Your task to perform on an android device: Open the web browser Image 0: 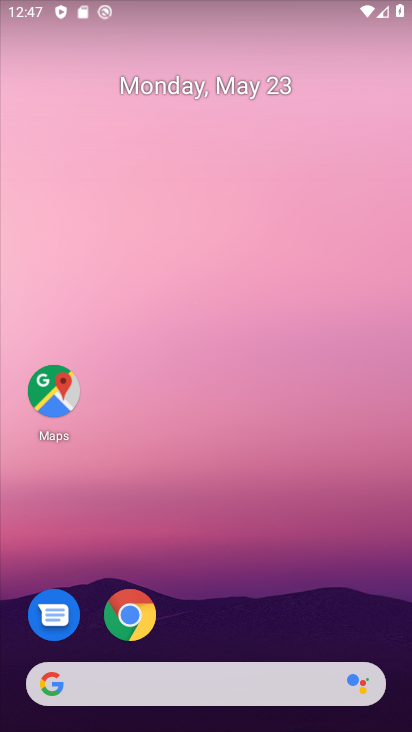
Step 0: click (129, 621)
Your task to perform on an android device: Open the web browser Image 1: 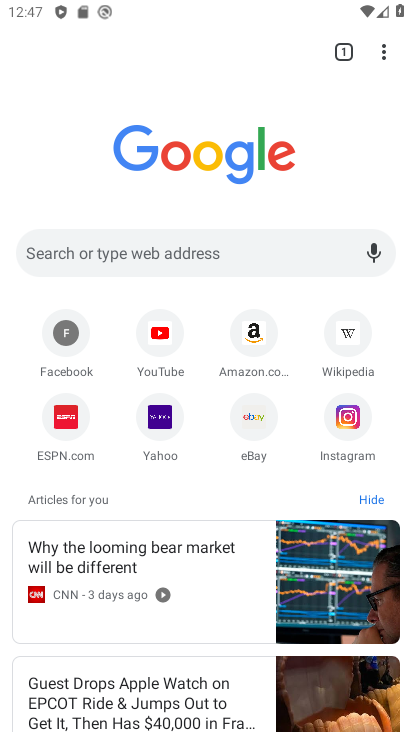
Step 1: task complete